Your task to perform on an android device: turn on translation in the chrome app Image 0: 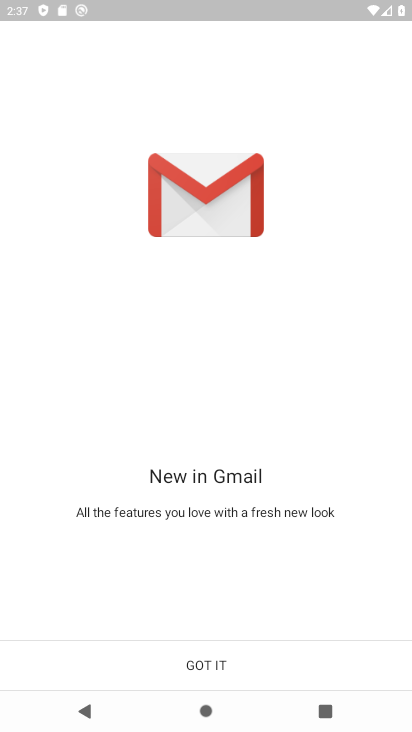
Step 0: press home button
Your task to perform on an android device: turn on translation in the chrome app Image 1: 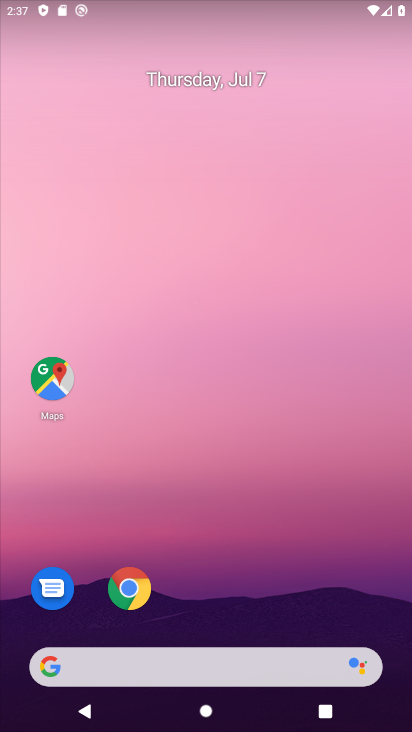
Step 1: click (129, 588)
Your task to perform on an android device: turn on translation in the chrome app Image 2: 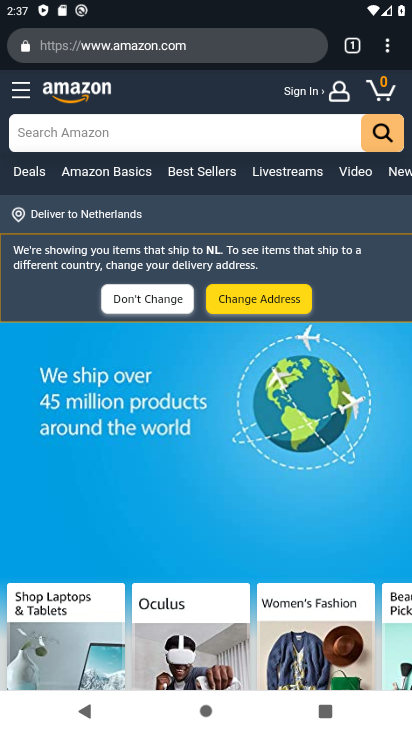
Step 2: click (387, 48)
Your task to perform on an android device: turn on translation in the chrome app Image 3: 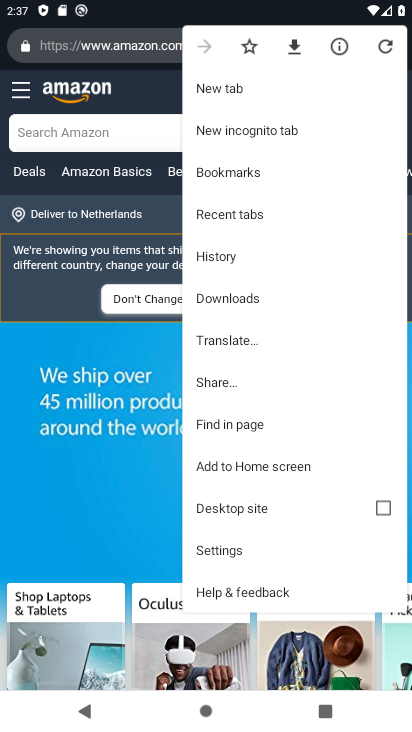
Step 3: click (232, 549)
Your task to perform on an android device: turn on translation in the chrome app Image 4: 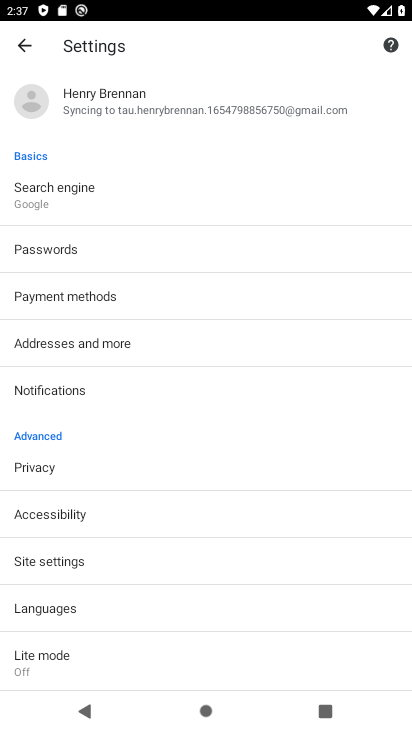
Step 4: click (65, 607)
Your task to perform on an android device: turn on translation in the chrome app Image 5: 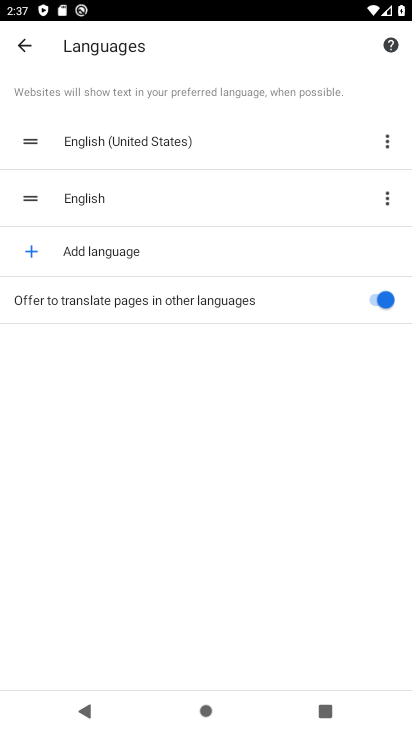
Step 5: task complete